Your task to perform on an android device: Go to Maps Image 0: 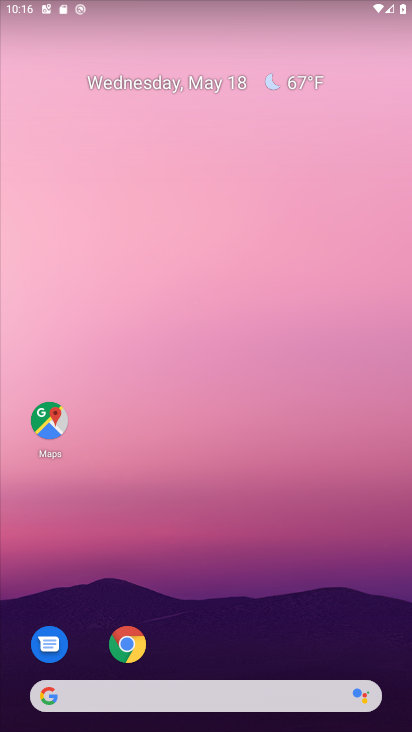
Step 0: click (48, 422)
Your task to perform on an android device: Go to Maps Image 1: 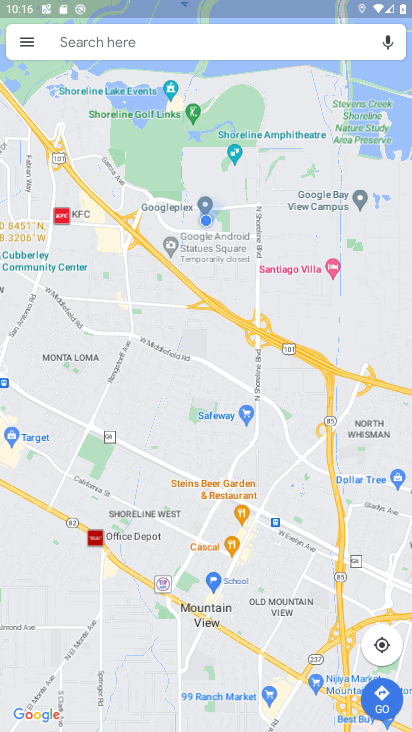
Step 1: task complete